Your task to perform on an android device: check out phone information Image 0: 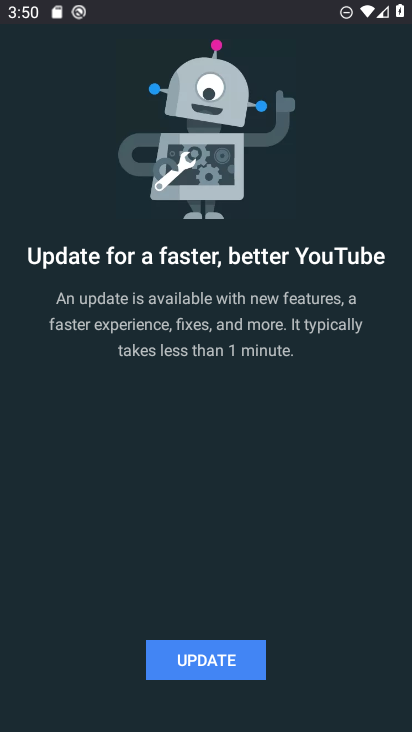
Step 0: press home button
Your task to perform on an android device: check out phone information Image 1: 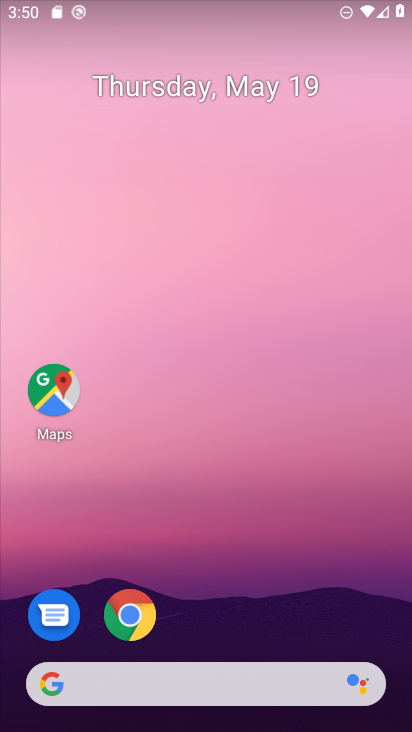
Step 1: drag from (305, 614) to (300, 257)
Your task to perform on an android device: check out phone information Image 2: 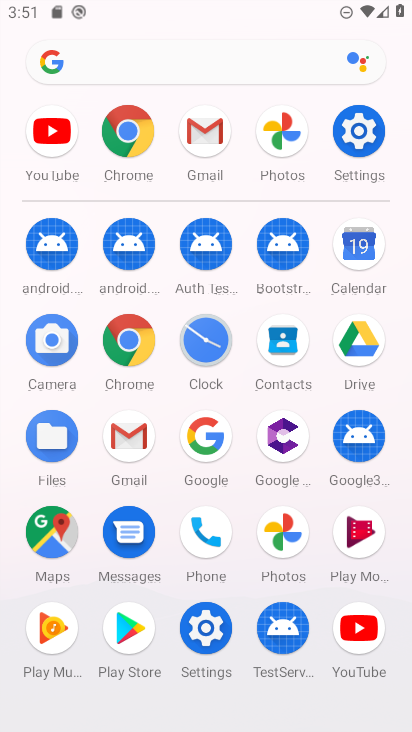
Step 2: click (348, 148)
Your task to perform on an android device: check out phone information Image 3: 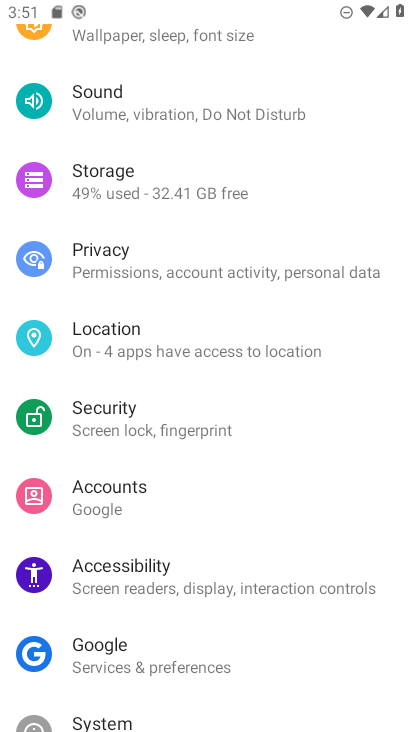
Step 3: drag from (325, 697) to (271, 322)
Your task to perform on an android device: check out phone information Image 4: 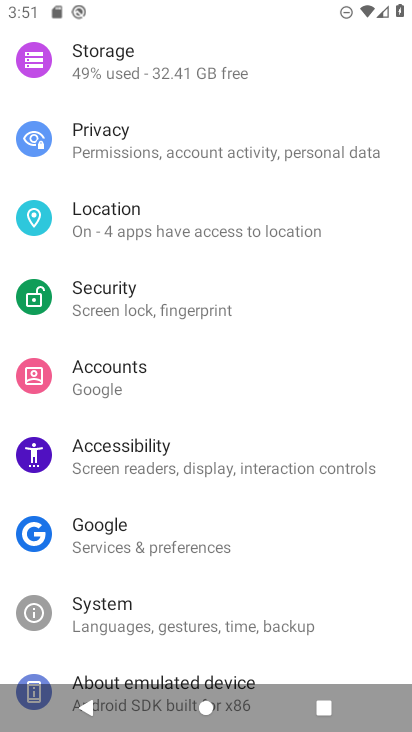
Step 4: click (250, 675)
Your task to perform on an android device: check out phone information Image 5: 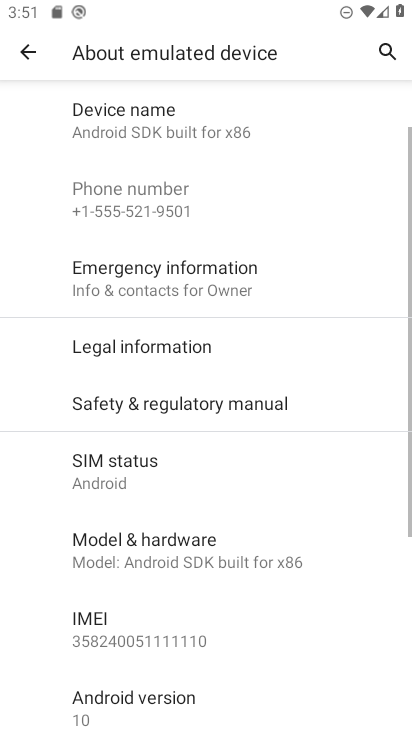
Step 5: task complete